Your task to perform on an android device: find photos in the google photos app Image 0: 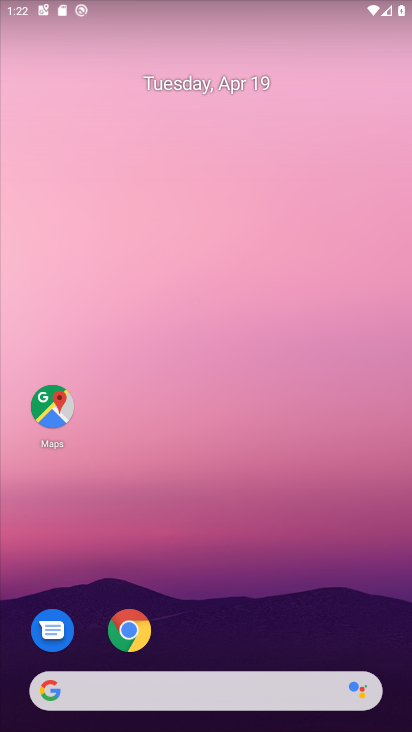
Step 0: drag from (286, 588) to (152, 8)
Your task to perform on an android device: find photos in the google photos app Image 1: 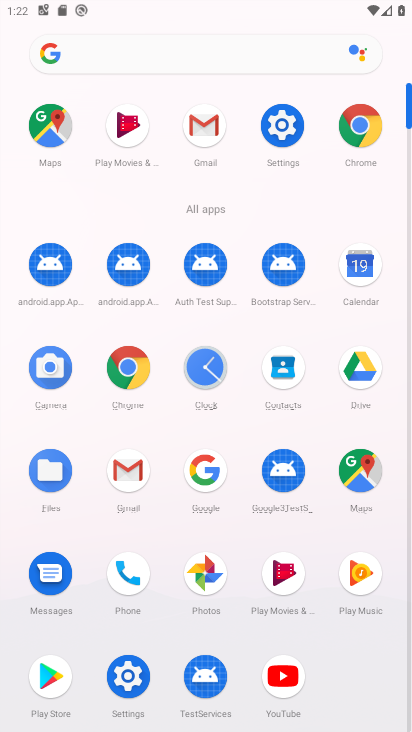
Step 1: click (196, 575)
Your task to perform on an android device: find photos in the google photos app Image 2: 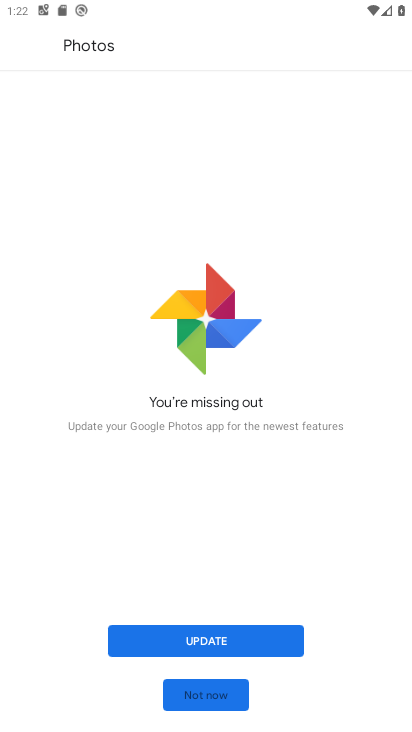
Step 2: click (181, 648)
Your task to perform on an android device: find photos in the google photos app Image 3: 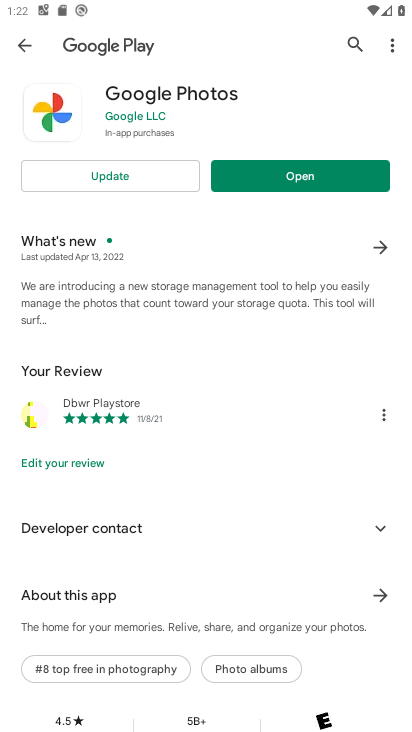
Step 3: click (44, 184)
Your task to perform on an android device: find photos in the google photos app Image 4: 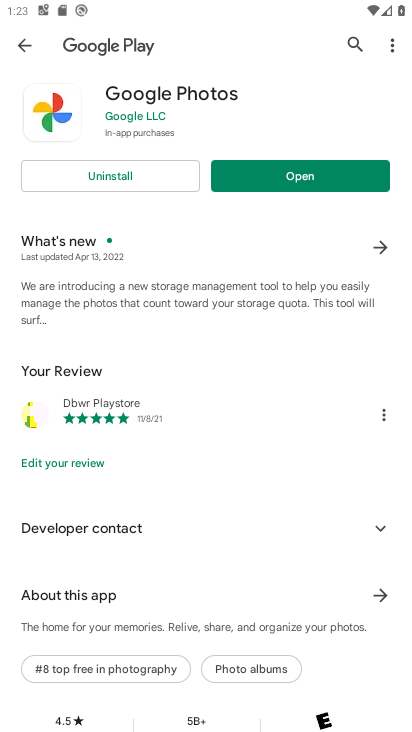
Step 4: click (245, 183)
Your task to perform on an android device: find photos in the google photos app Image 5: 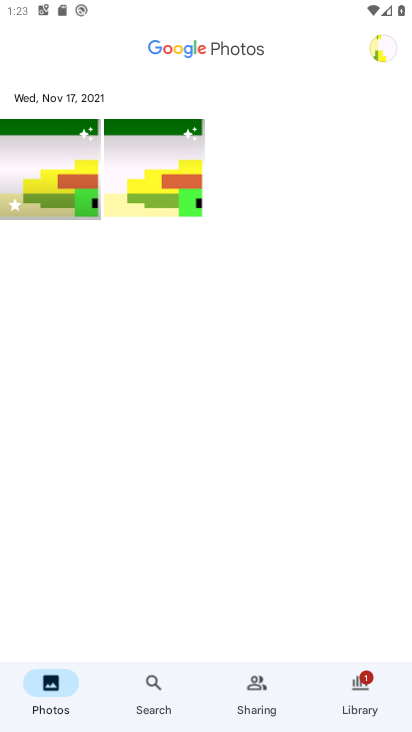
Step 5: task complete